Your task to perform on an android device: Show the shopping cart on newegg.com. Add "beats solo 3" to the cart on newegg.com Image 0: 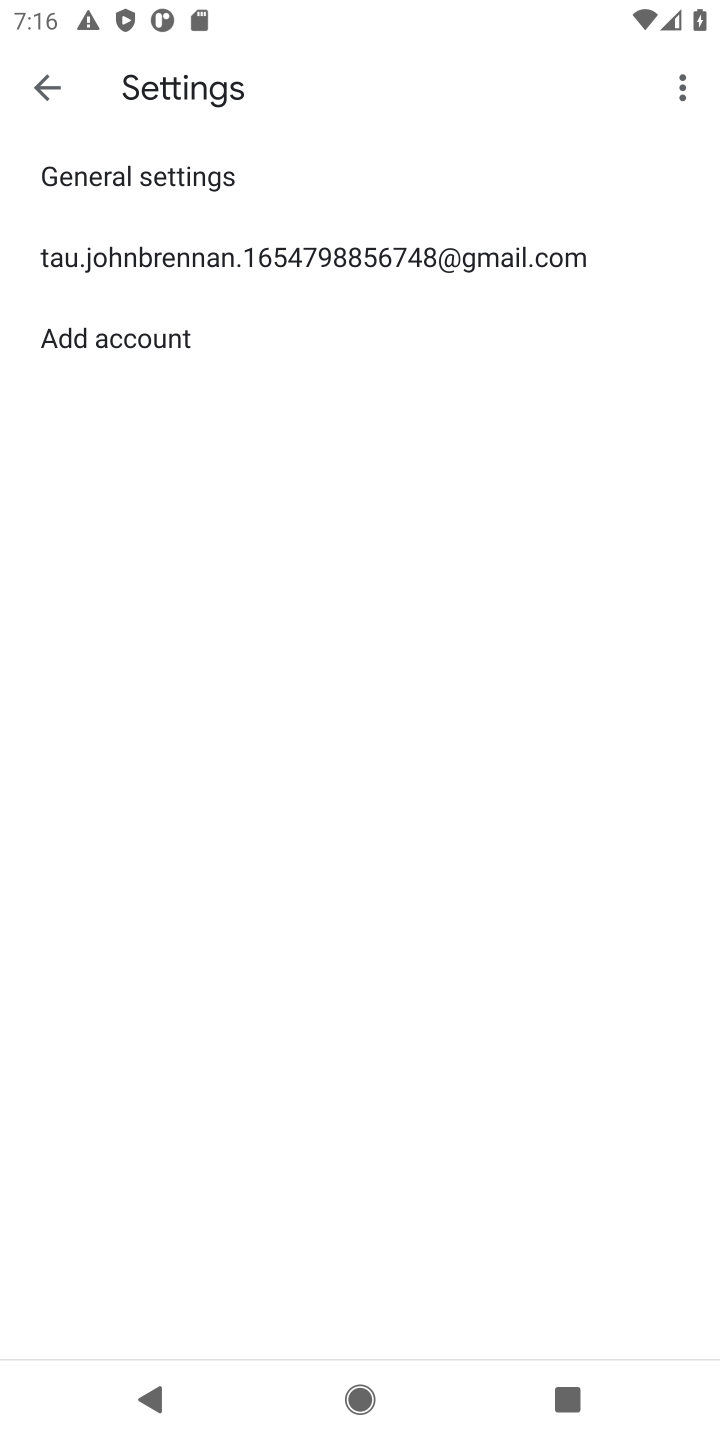
Step 0: task complete